Your task to perform on an android device: stop showing notifications on the lock screen Image 0: 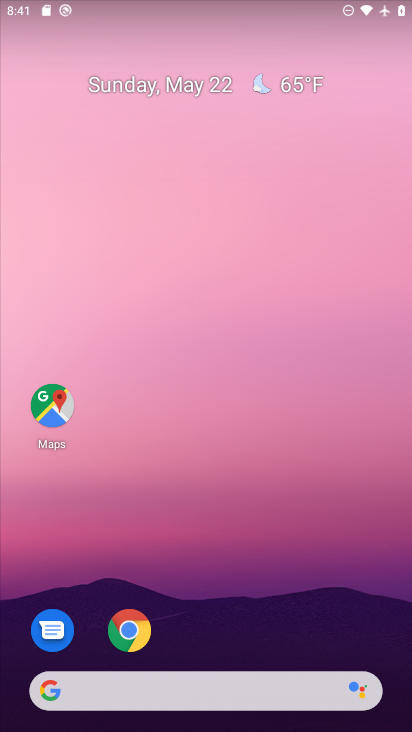
Step 0: drag from (170, 694) to (298, 271)
Your task to perform on an android device: stop showing notifications on the lock screen Image 1: 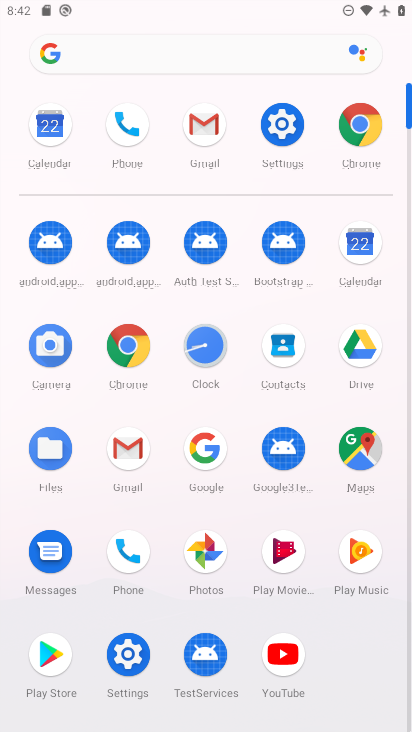
Step 1: click (289, 133)
Your task to perform on an android device: stop showing notifications on the lock screen Image 2: 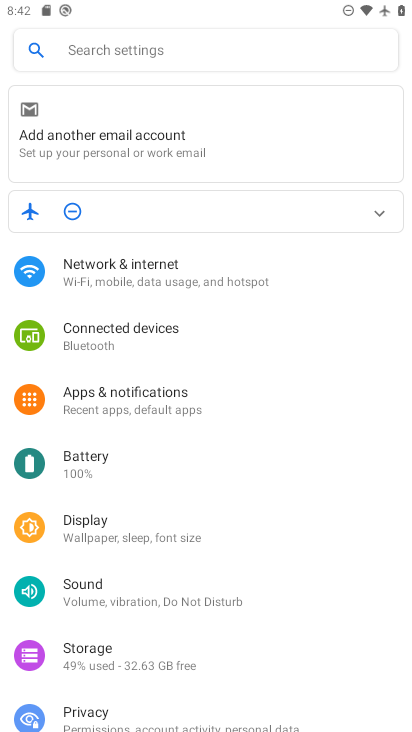
Step 2: click (141, 397)
Your task to perform on an android device: stop showing notifications on the lock screen Image 3: 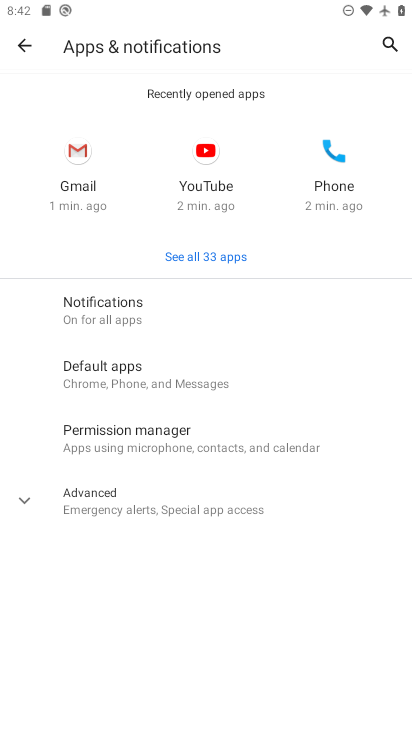
Step 3: click (124, 312)
Your task to perform on an android device: stop showing notifications on the lock screen Image 4: 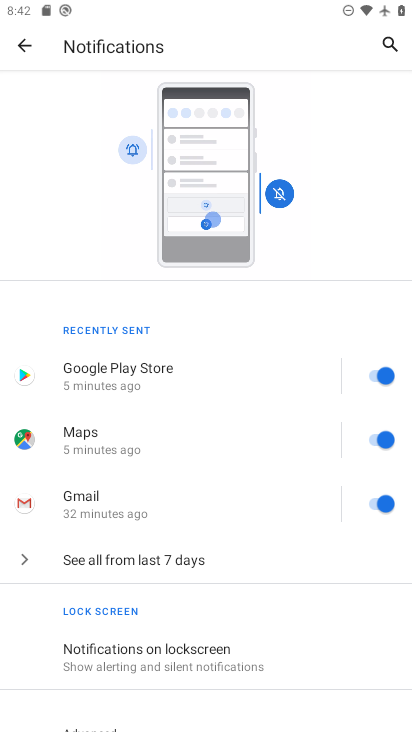
Step 4: drag from (193, 620) to (288, 464)
Your task to perform on an android device: stop showing notifications on the lock screen Image 5: 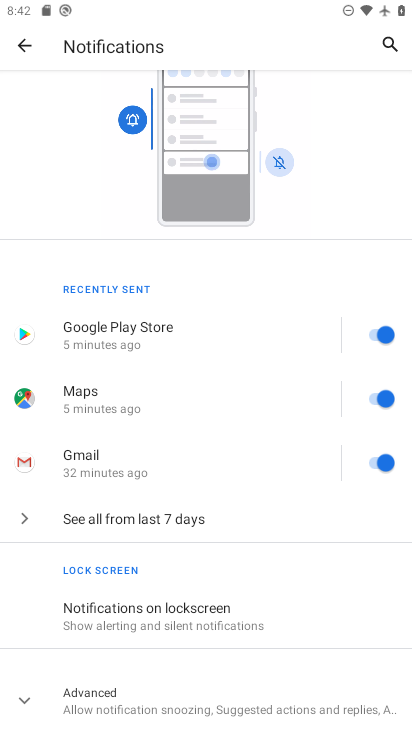
Step 5: click (196, 622)
Your task to perform on an android device: stop showing notifications on the lock screen Image 6: 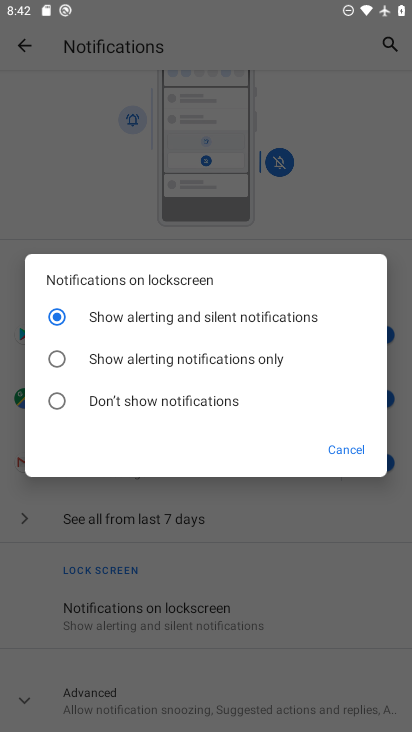
Step 6: click (56, 401)
Your task to perform on an android device: stop showing notifications on the lock screen Image 7: 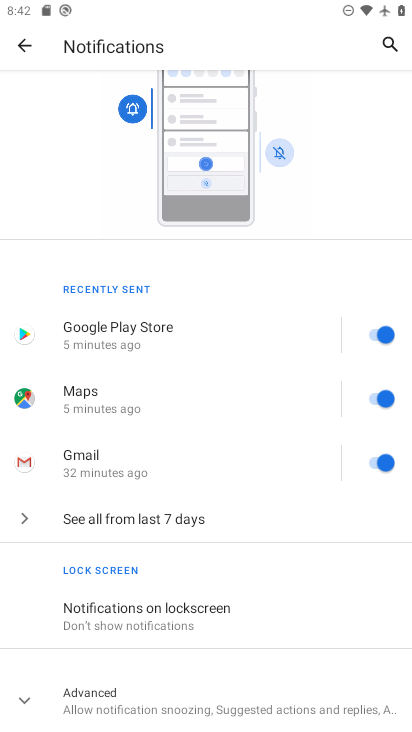
Step 7: task complete